Your task to perform on an android device: Add "macbook pro 13 inch" to the cart on newegg.com Image 0: 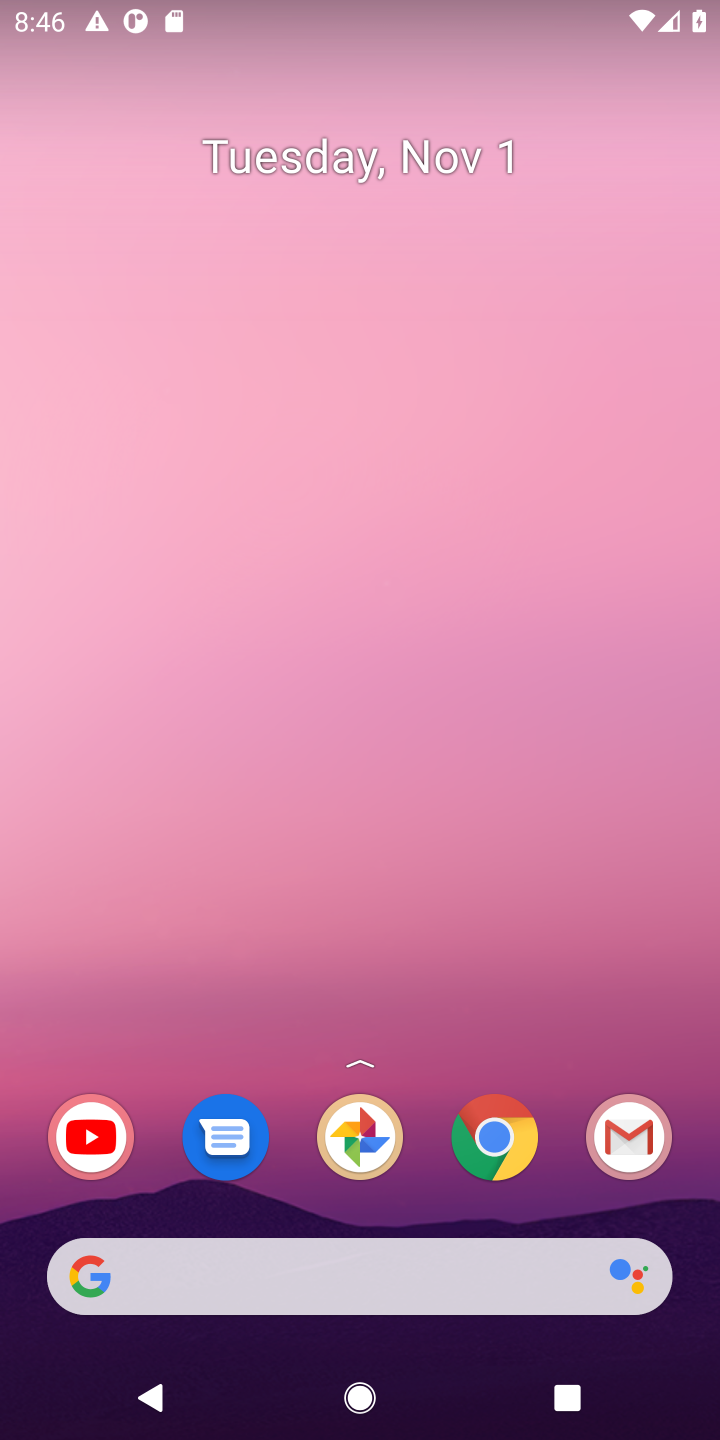
Step 0: press home button
Your task to perform on an android device: Add "macbook pro 13 inch" to the cart on newegg.com Image 1: 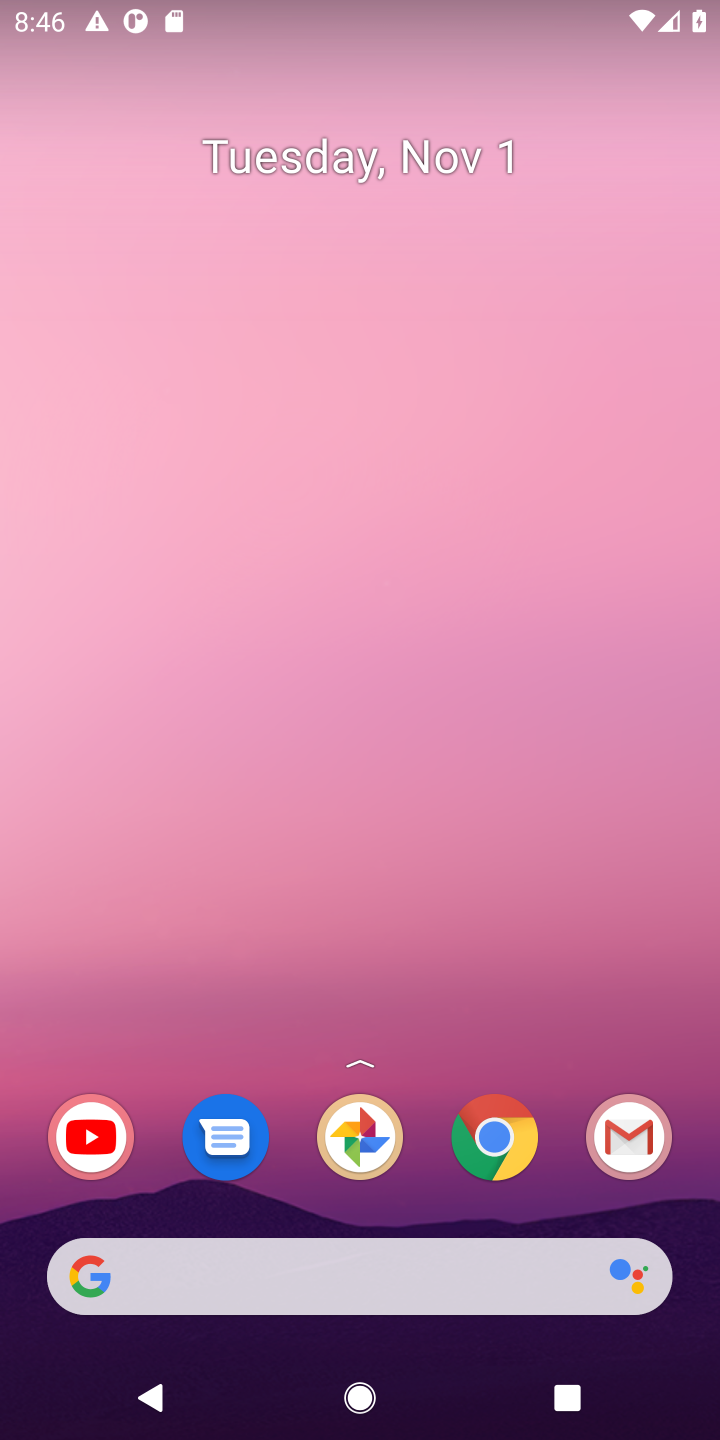
Step 1: click (347, 1290)
Your task to perform on an android device: Add "macbook pro 13 inch" to the cart on newegg.com Image 2: 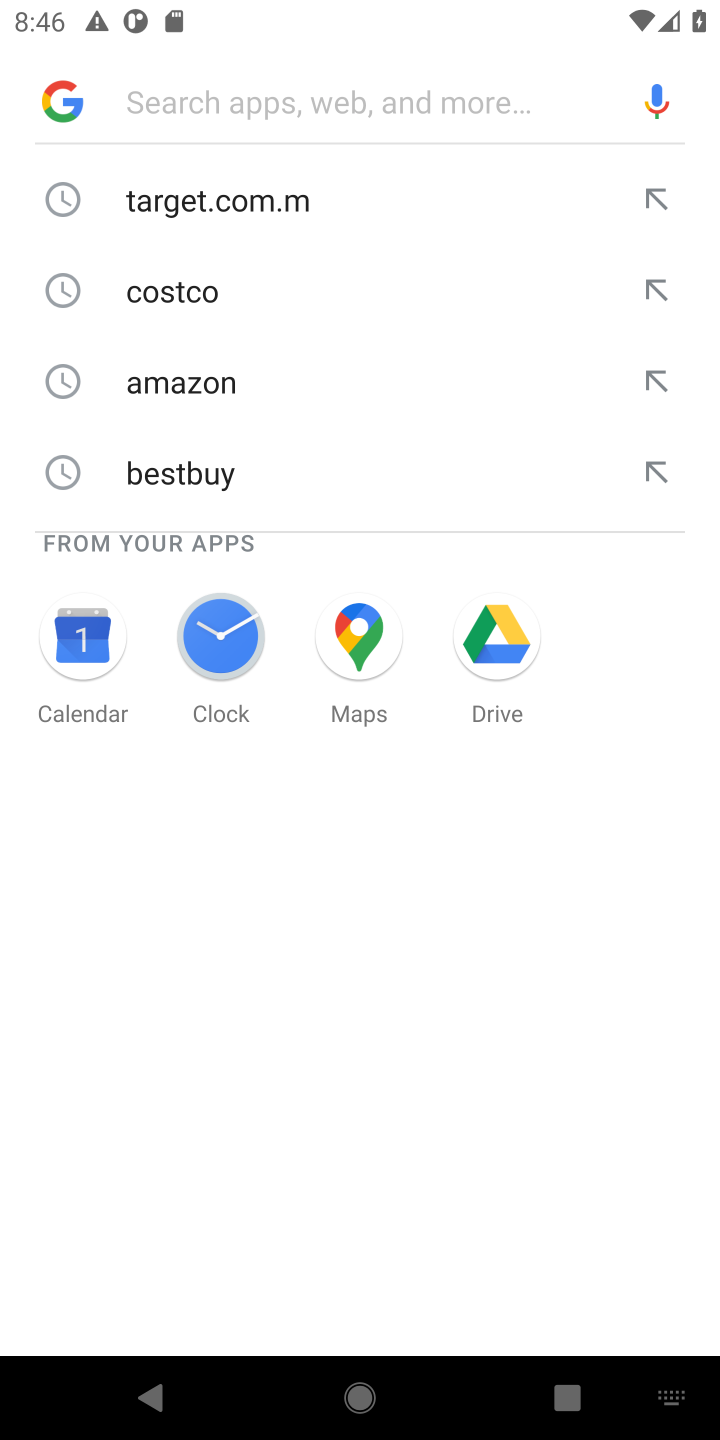
Step 2: type "newegg.com"
Your task to perform on an android device: Add "macbook pro 13 inch" to the cart on newegg.com Image 3: 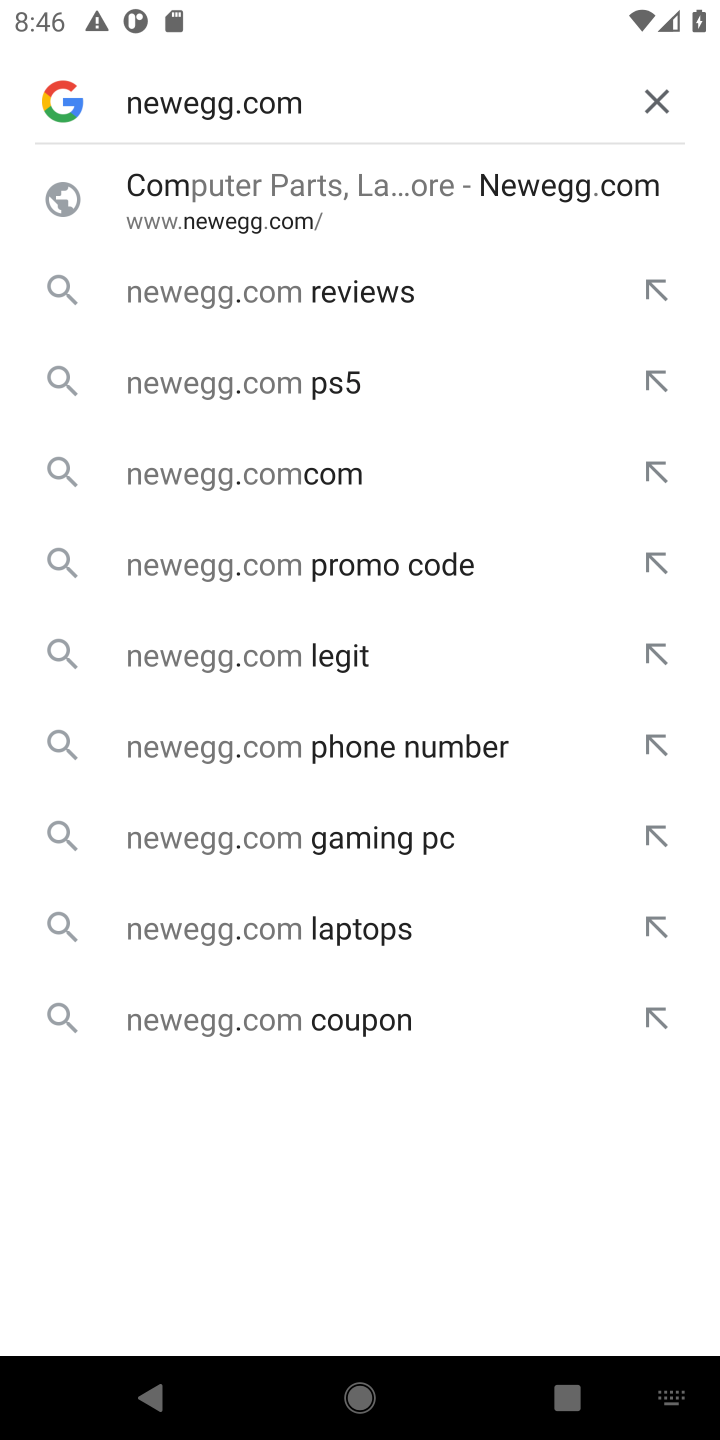
Step 3: click (217, 191)
Your task to perform on an android device: Add "macbook pro 13 inch" to the cart on newegg.com Image 4: 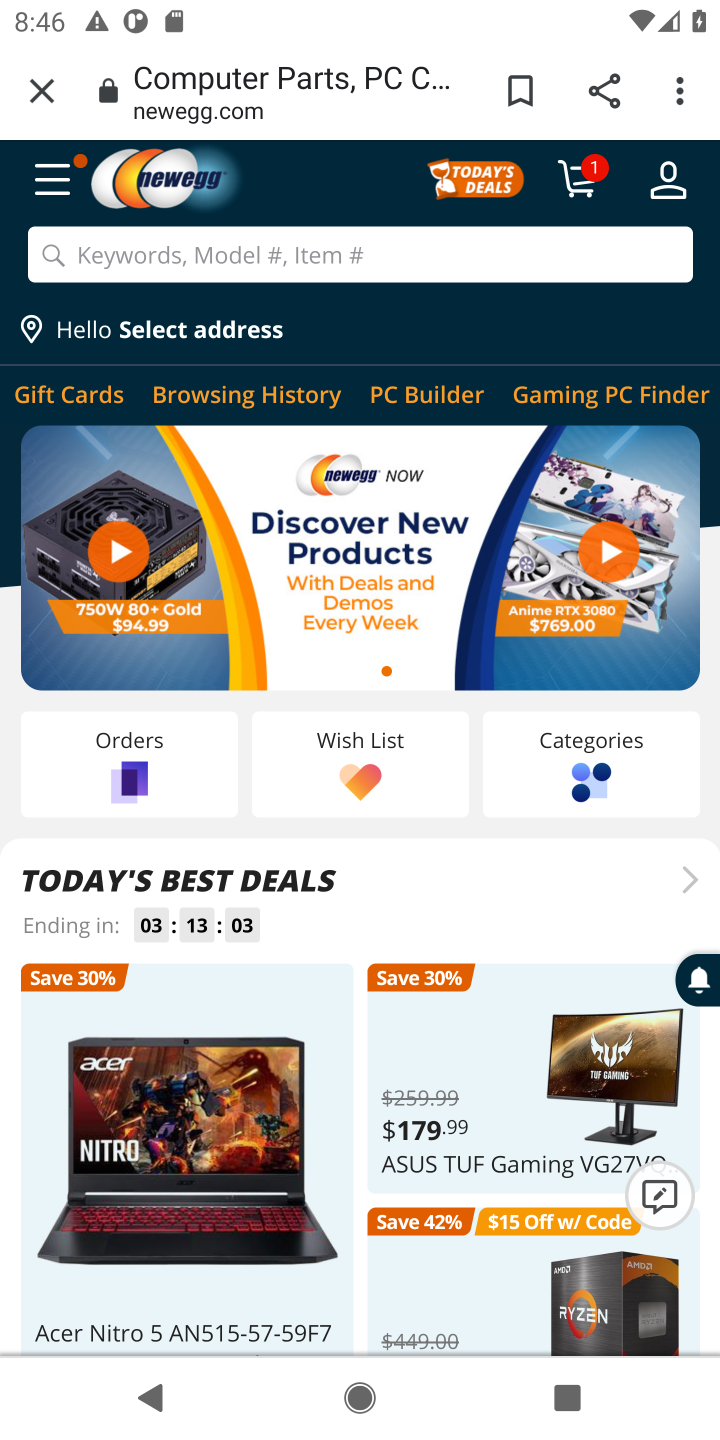
Step 4: click (327, 245)
Your task to perform on an android device: Add "macbook pro 13 inch" to the cart on newegg.com Image 5: 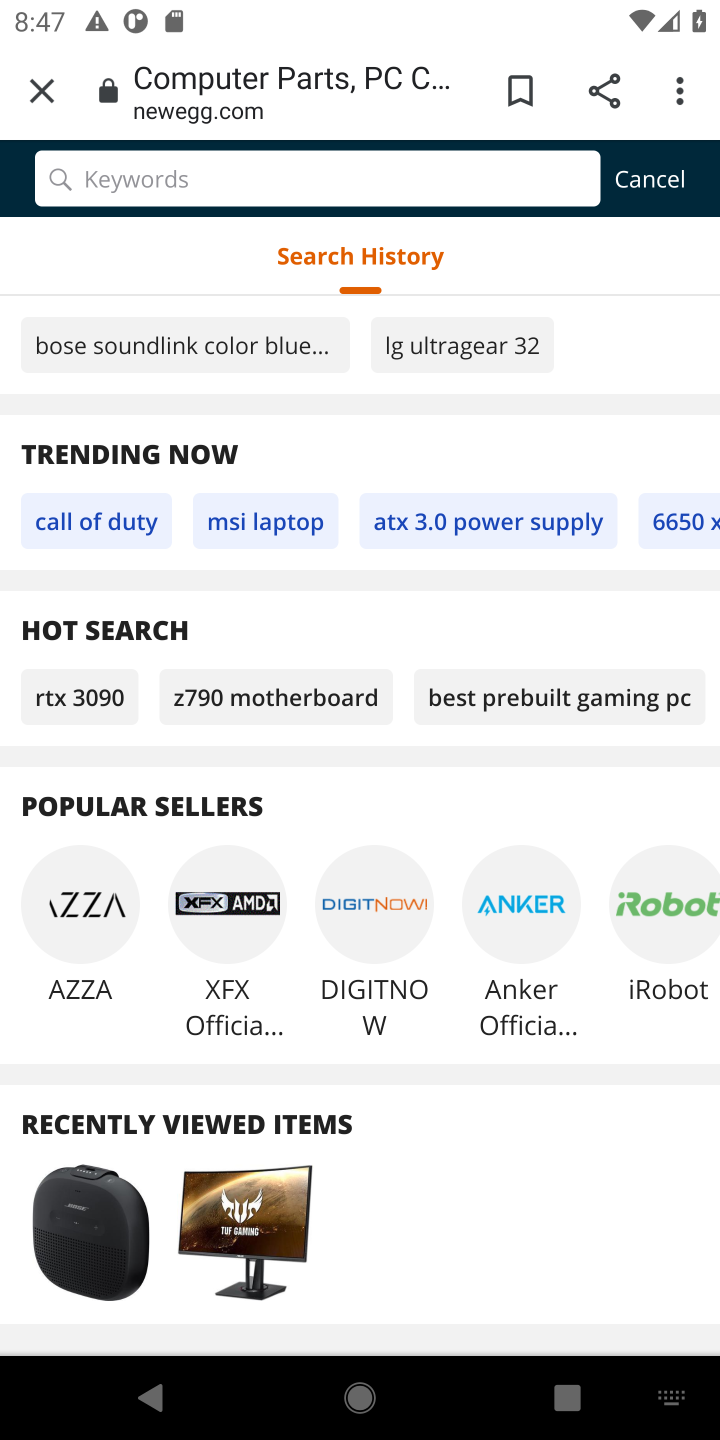
Step 5: type "macbook pro 13 inch"
Your task to perform on an android device: Add "macbook pro 13 inch" to the cart on newegg.com Image 6: 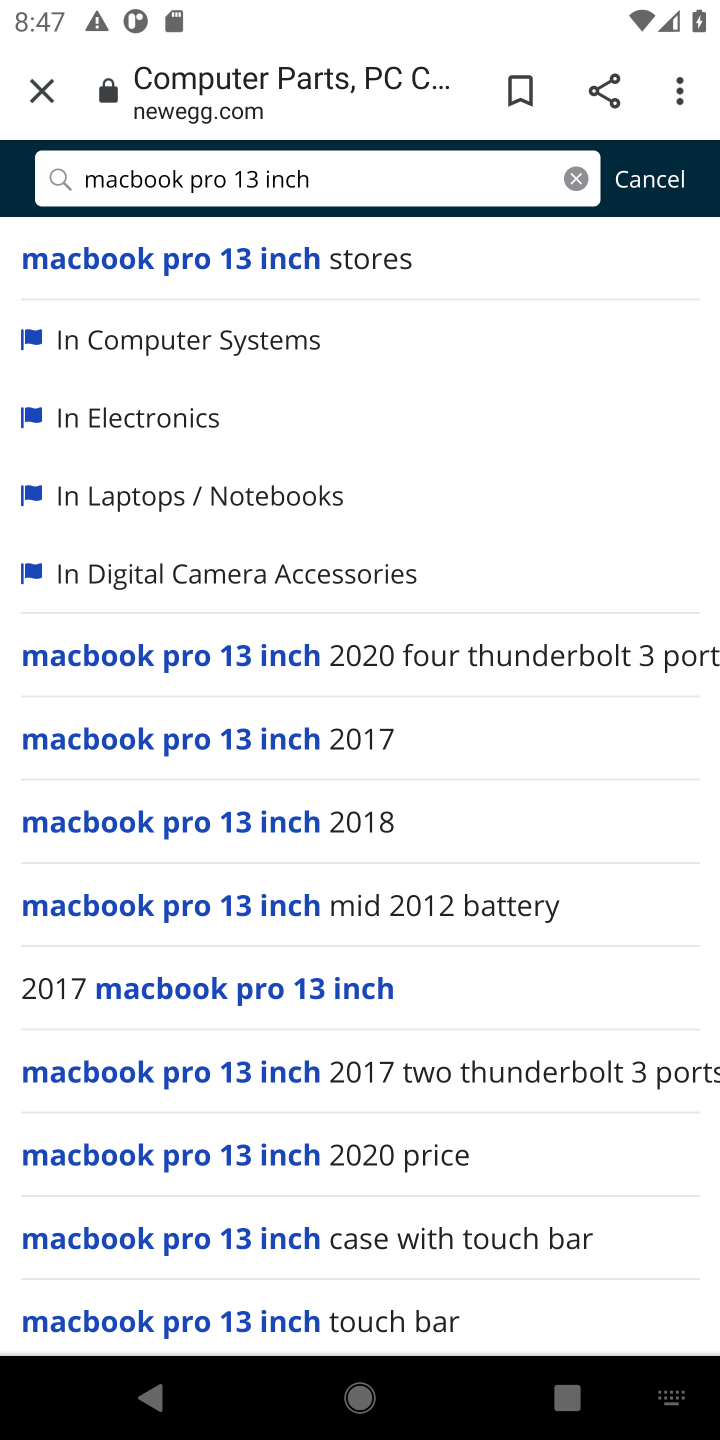
Step 6: click (234, 254)
Your task to perform on an android device: Add "macbook pro 13 inch" to the cart on newegg.com Image 7: 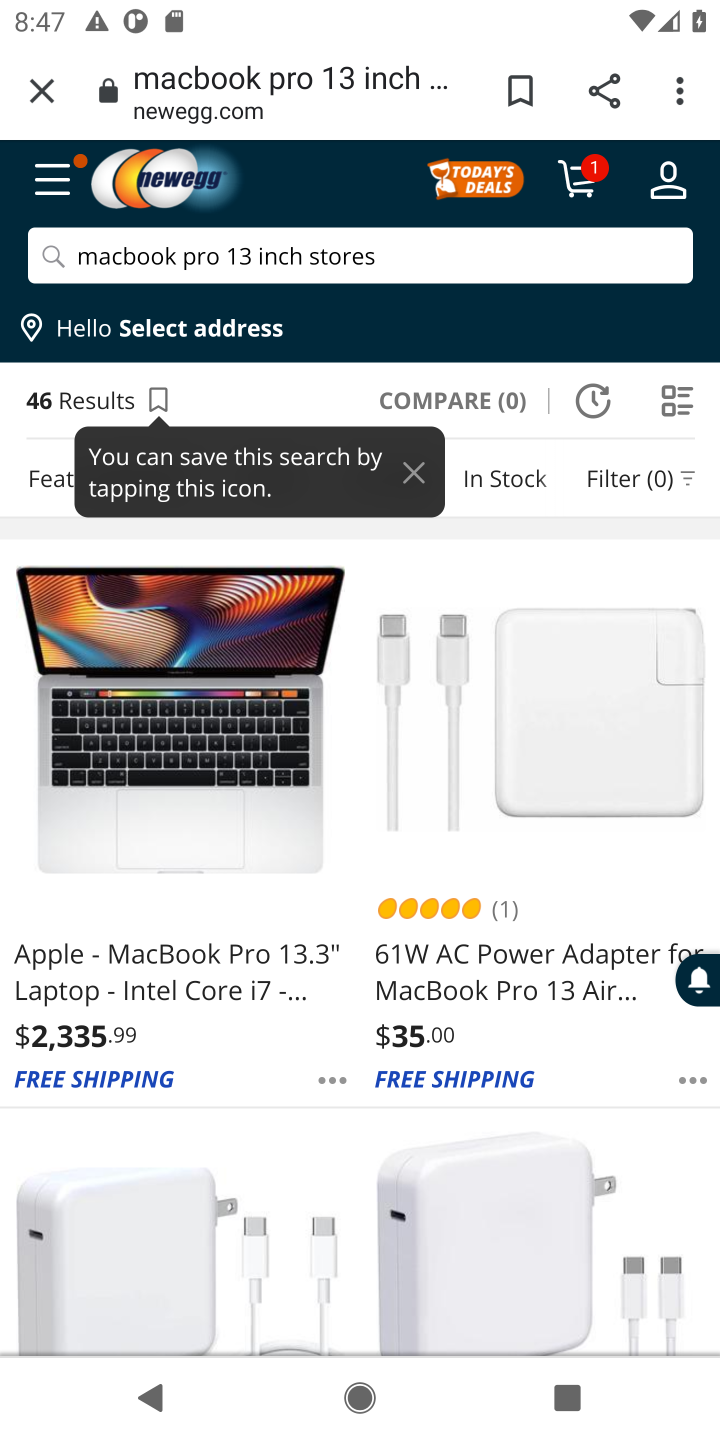
Step 7: click (152, 849)
Your task to perform on an android device: Add "macbook pro 13 inch" to the cart on newegg.com Image 8: 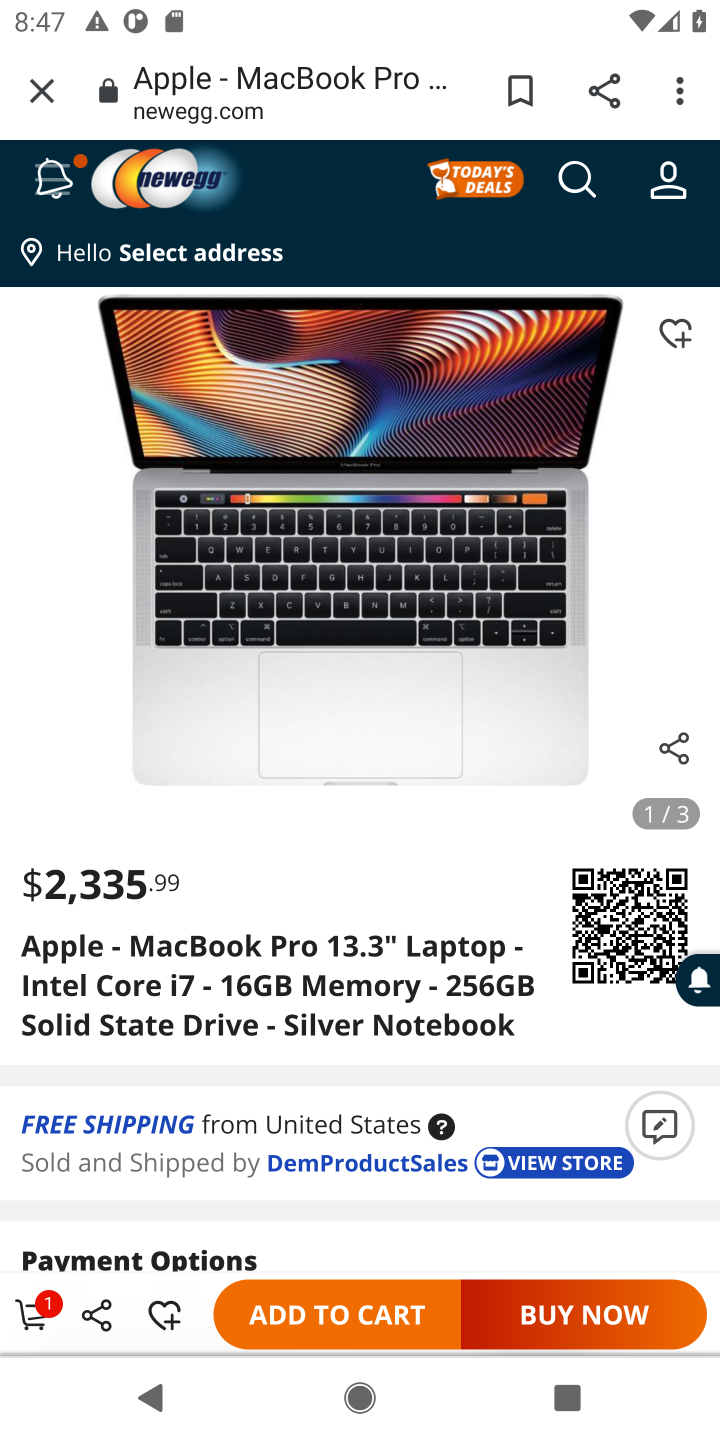
Step 8: click (337, 1314)
Your task to perform on an android device: Add "macbook pro 13 inch" to the cart on newegg.com Image 9: 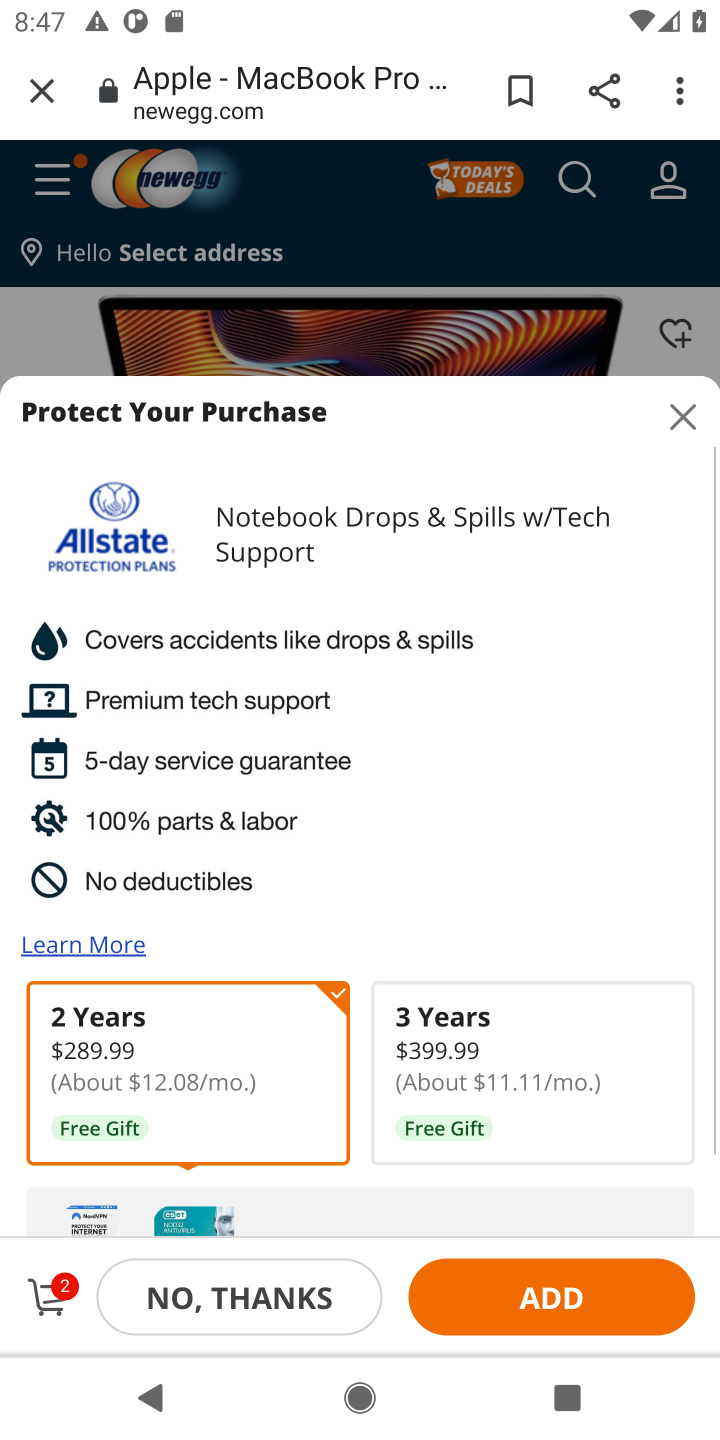
Step 9: click (308, 1307)
Your task to perform on an android device: Add "macbook pro 13 inch" to the cart on newegg.com Image 10: 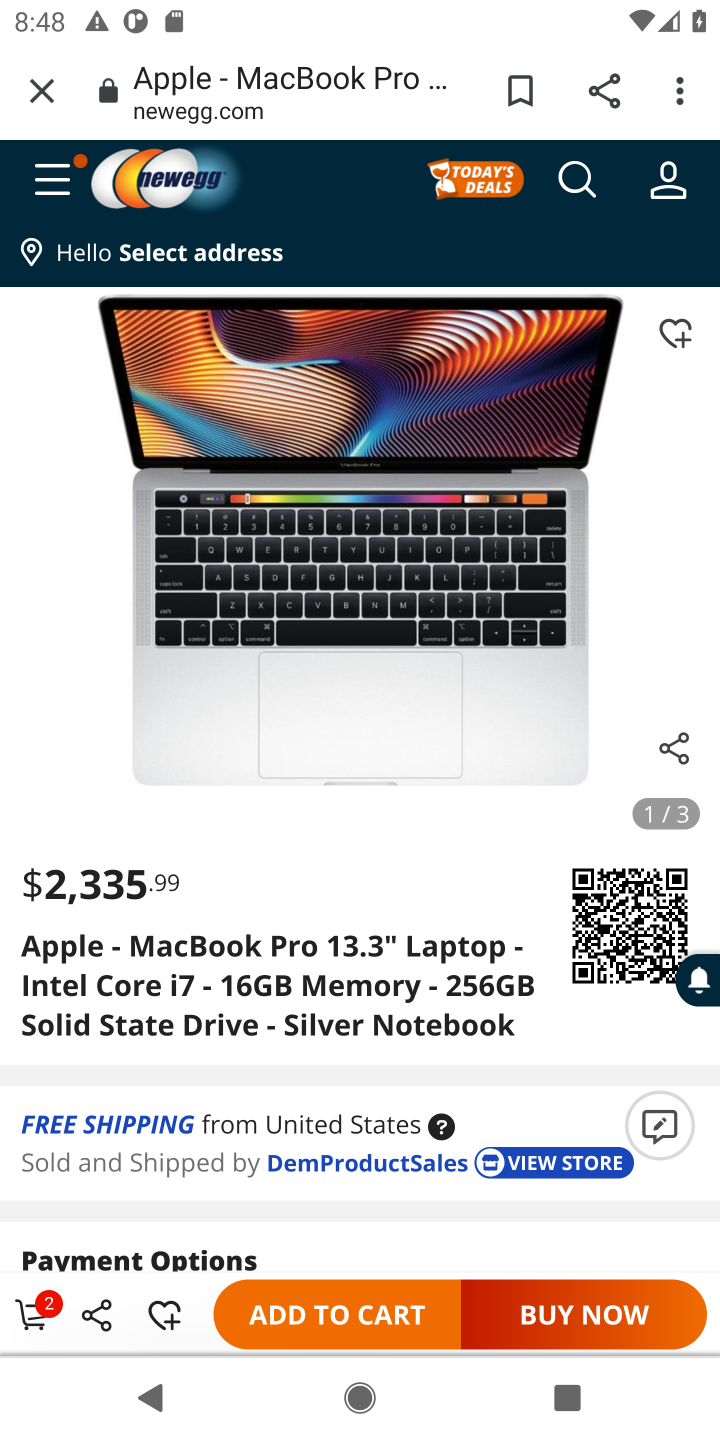
Step 10: task complete